Your task to perform on an android device: check the backup settings in the google photos Image 0: 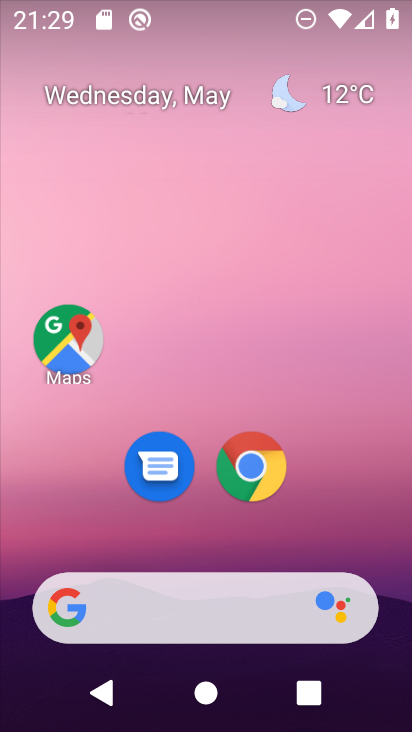
Step 0: drag from (210, 540) to (226, 18)
Your task to perform on an android device: check the backup settings in the google photos Image 1: 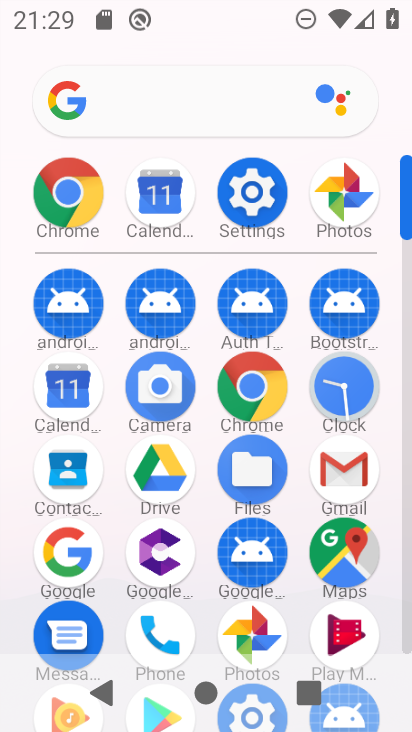
Step 1: click (248, 632)
Your task to perform on an android device: check the backup settings in the google photos Image 2: 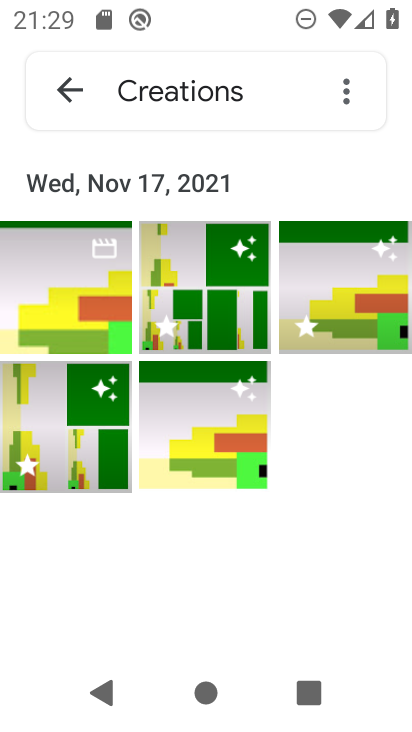
Step 2: click (65, 88)
Your task to perform on an android device: check the backup settings in the google photos Image 3: 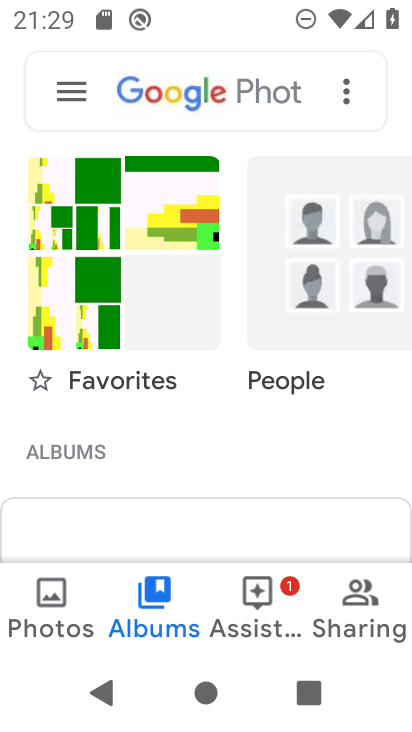
Step 3: click (65, 88)
Your task to perform on an android device: check the backup settings in the google photos Image 4: 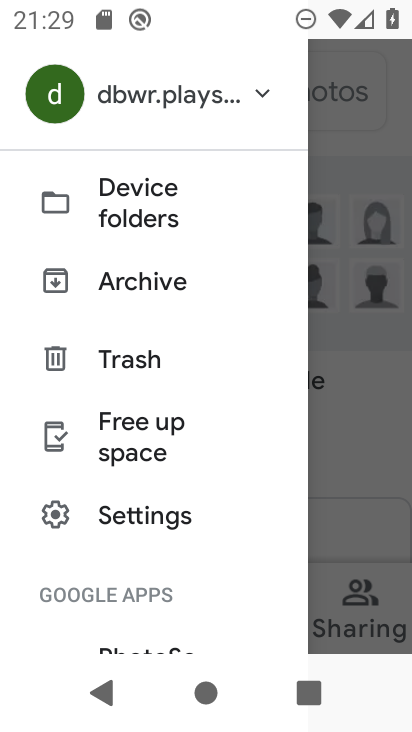
Step 4: click (111, 510)
Your task to perform on an android device: check the backup settings in the google photos Image 5: 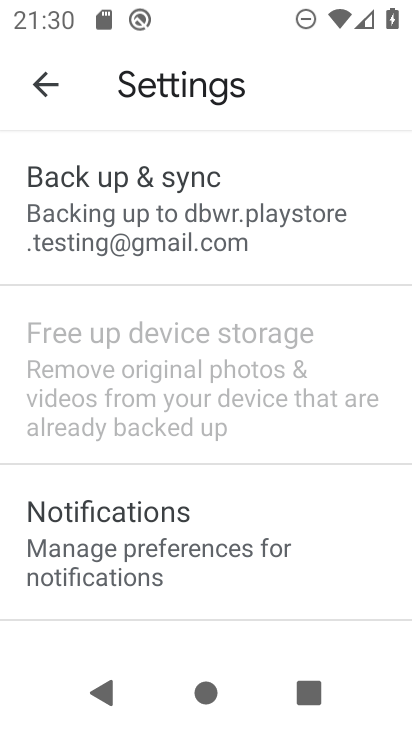
Step 5: drag from (176, 559) to (180, 601)
Your task to perform on an android device: check the backup settings in the google photos Image 6: 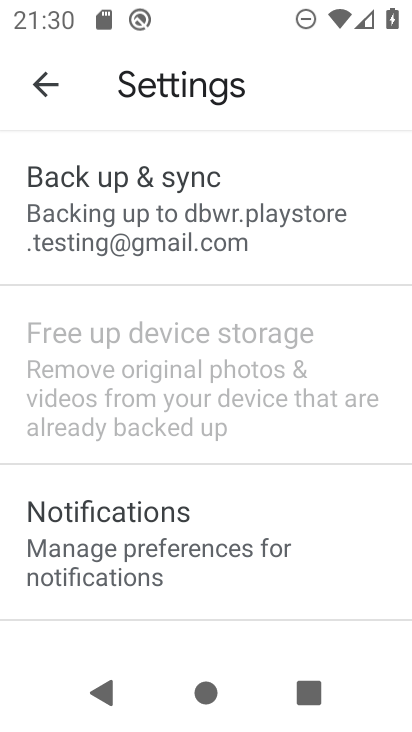
Step 6: click (147, 215)
Your task to perform on an android device: check the backup settings in the google photos Image 7: 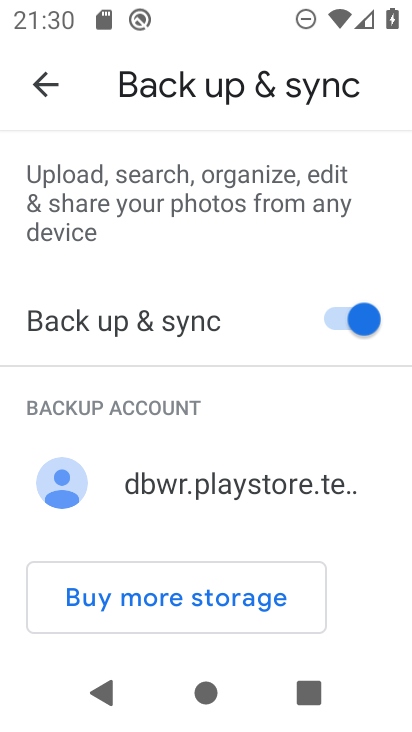
Step 7: task complete